Your task to perform on an android device: Go to eBay Image 0: 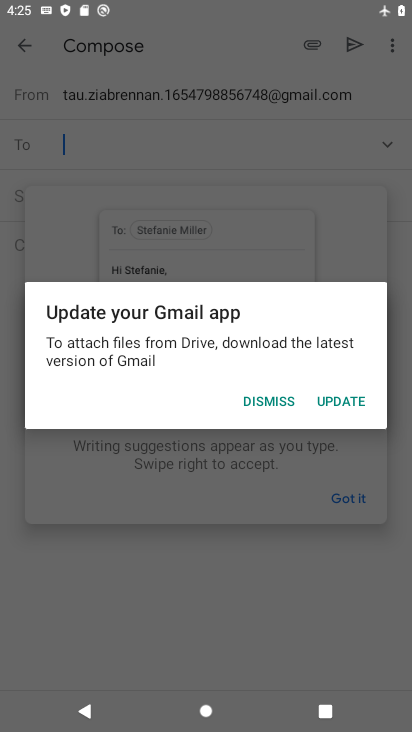
Step 0: click (282, 401)
Your task to perform on an android device: Go to eBay Image 1: 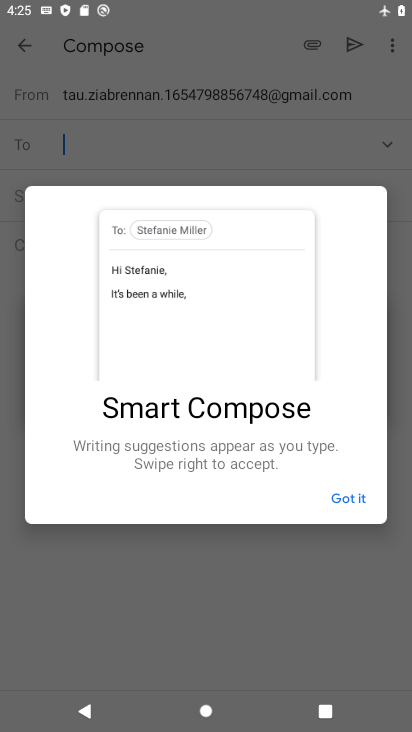
Step 1: click (359, 498)
Your task to perform on an android device: Go to eBay Image 2: 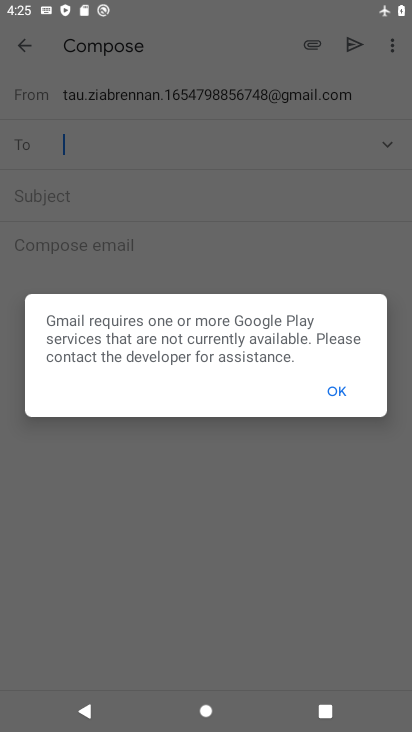
Step 2: click (333, 399)
Your task to perform on an android device: Go to eBay Image 3: 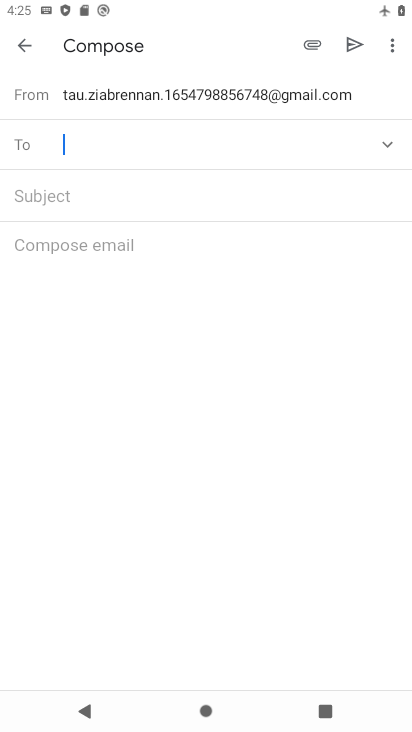
Step 3: click (11, 41)
Your task to perform on an android device: Go to eBay Image 4: 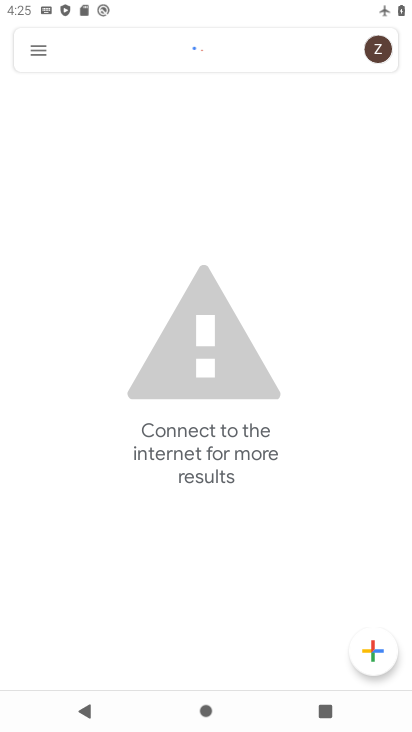
Step 4: press back button
Your task to perform on an android device: Go to eBay Image 5: 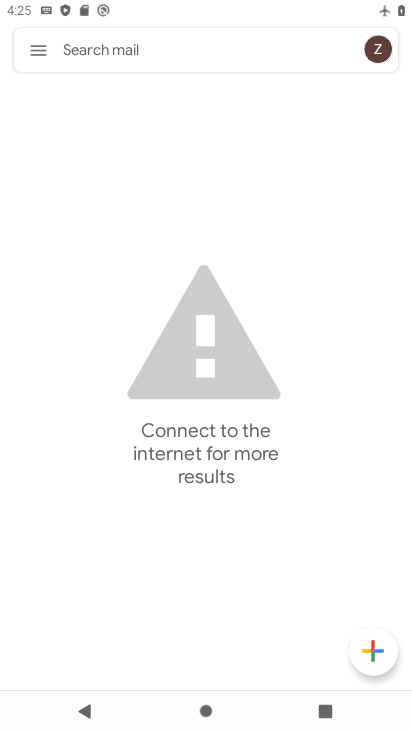
Step 5: press back button
Your task to perform on an android device: Go to eBay Image 6: 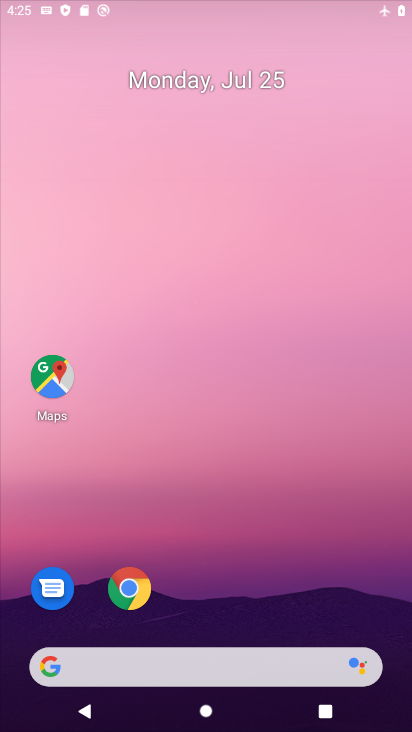
Step 6: press back button
Your task to perform on an android device: Go to eBay Image 7: 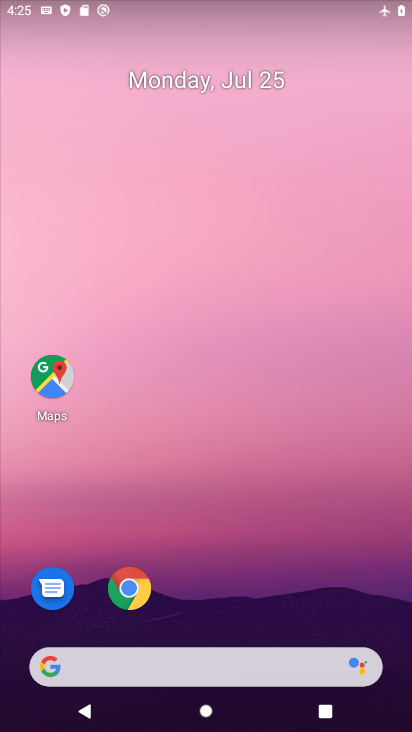
Step 7: drag from (250, 643) to (223, 154)
Your task to perform on an android device: Go to eBay Image 8: 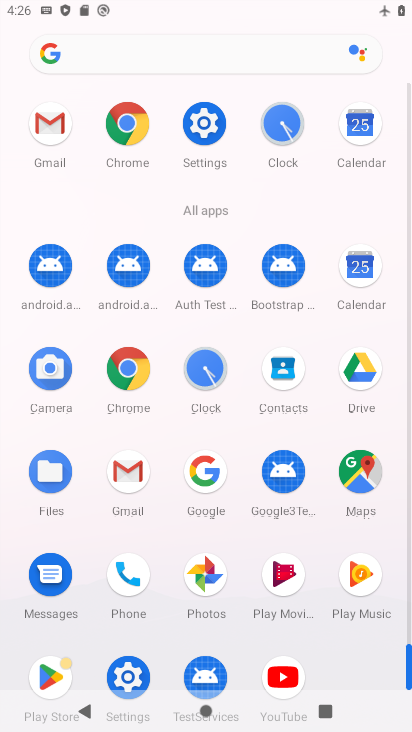
Step 8: click (119, 123)
Your task to perform on an android device: Go to eBay Image 9: 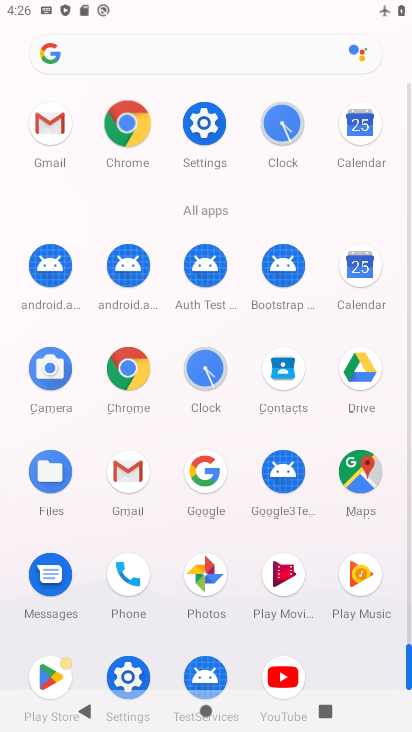
Step 9: click (121, 125)
Your task to perform on an android device: Go to eBay Image 10: 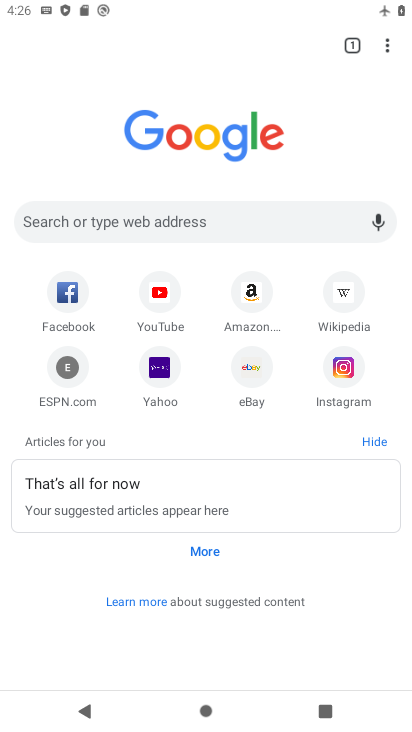
Step 10: click (246, 368)
Your task to perform on an android device: Go to eBay Image 11: 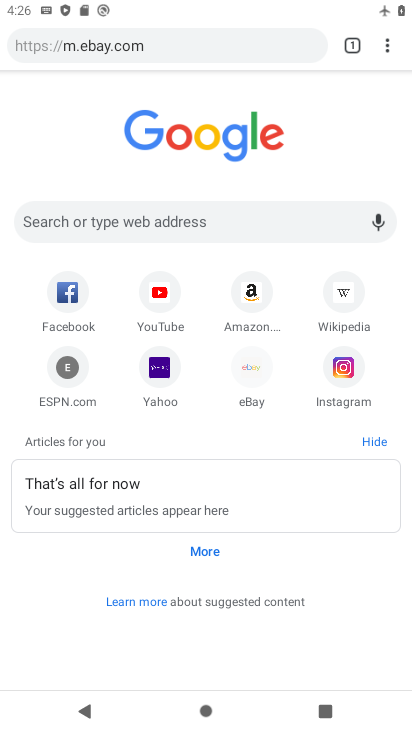
Step 11: click (251, 370)
Your task to perform on an android device: Go to eBay Image 12: 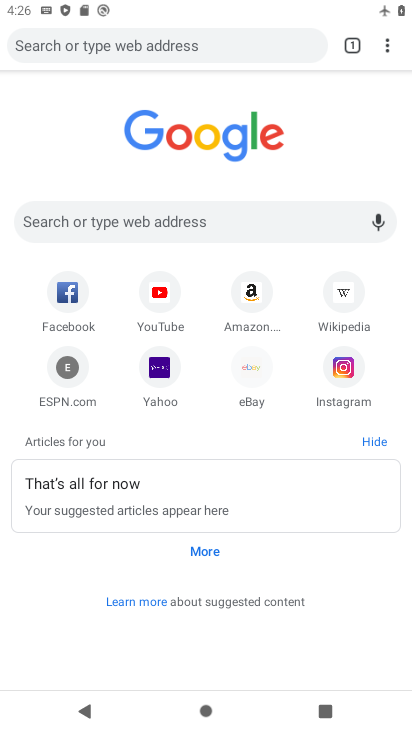
Step 12: click (254, 369)
Your task to perform on an android device: Go to eBay Image 13: 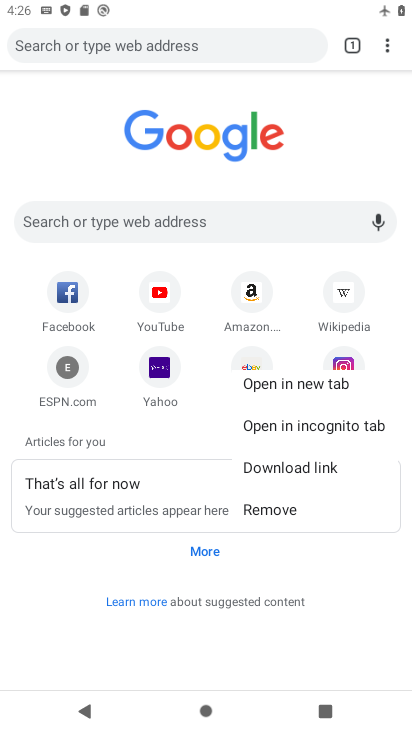
Step 13: click (252, 361)
Your task to perform on an android device: Go to eBay Image 14: 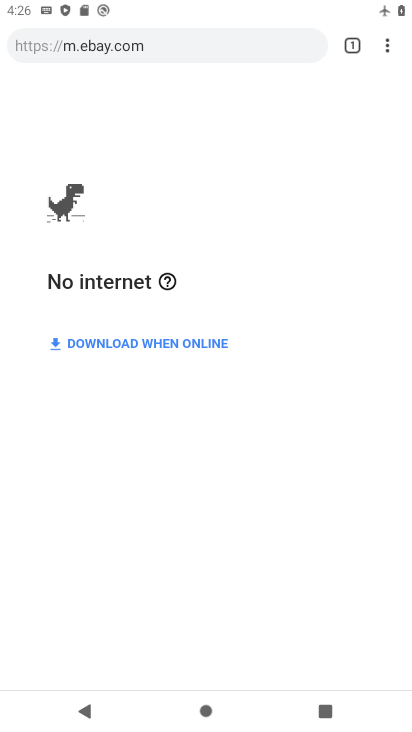
Step 14: task complete